Your task to perform on an android device: turn pop-ups on in chrome Image 0: 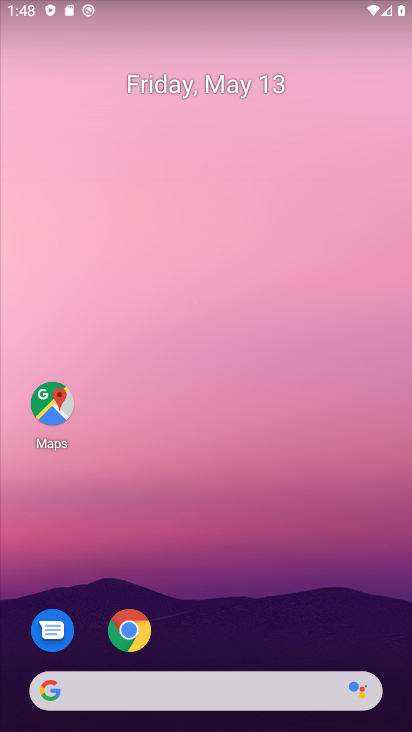
Step 0: click (137, 640)
Your task to perform on an android device: turn pop-ups on in chrome Image 1: 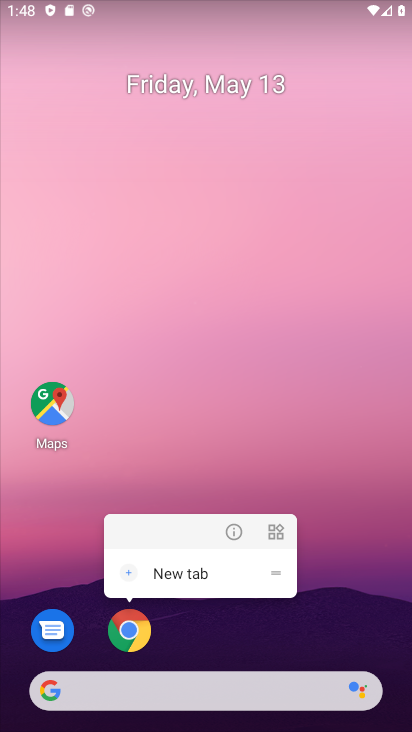
Step 1: click (134, 633)
Your task to perform on an android device: turn pop-ups on in chrome Image 2: 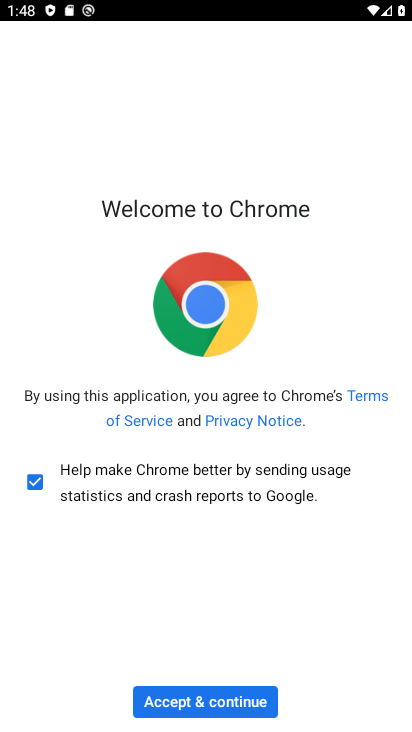
Step 2: click (214, 704)
Your task to perform on an android device: turn pop-ups on in chrome Image 3: 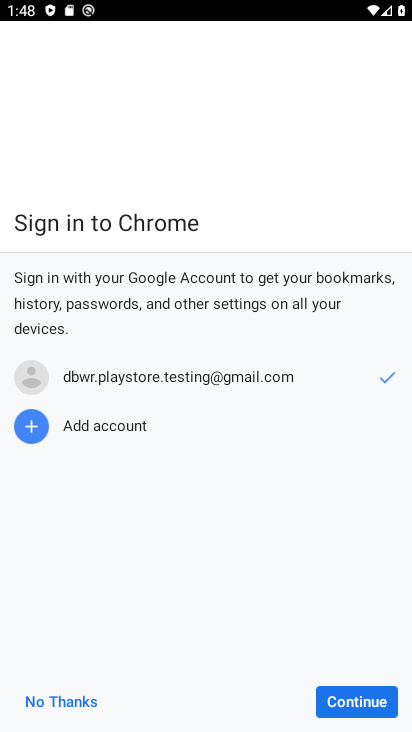
Step 3: click (377, 703)
Your task to perform on an android device: turn pop-ups on in chrome Image 4: 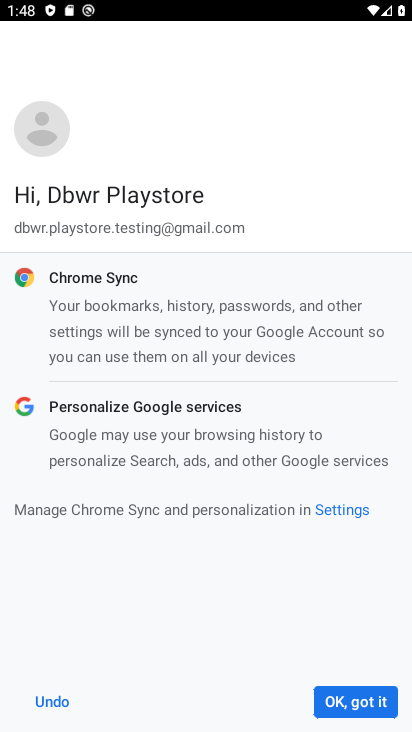
Step 4: click (377, 703)
Your task to perform on an android device: turn pop-ups on in chrome Image 5: 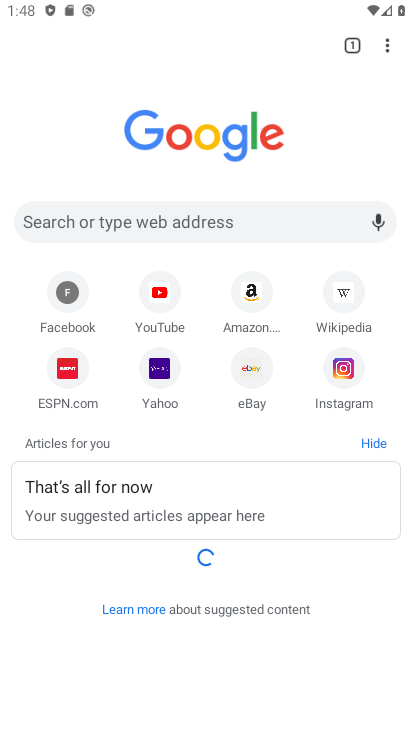
Step 5: click (396, 52)
Your task to perform on an android device: turn pop-ups on in chrome Image 6: 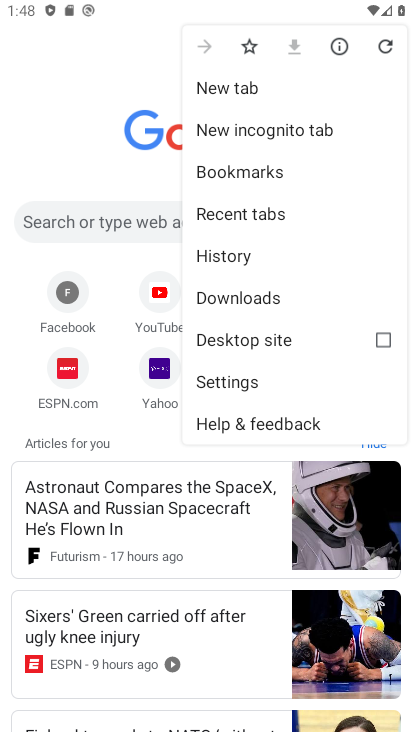
Step 6: click (253, 385)
Your task to perform on an android device: turn pop-ups on in chrome Image 7: 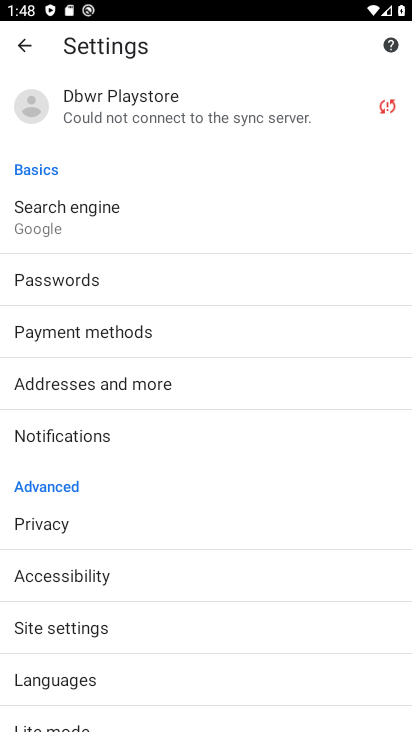
Step 7: click (112, 632)
Your task to perform on an android device: turn pop-ups on in chrome Image 8: 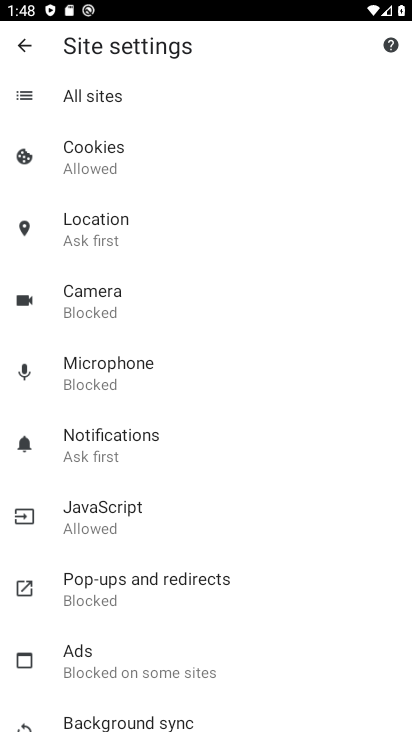
Step 8: click (119, 590)
Your task to perform on an android device: turn pop-ups on in chrome Image 9: 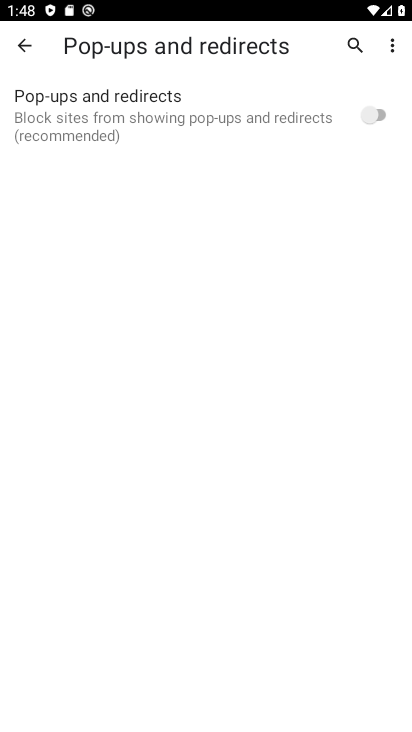
Step 9: click (369, 110)
Your task to perform on an android device: turn pop-ups on in chrome Image 10: 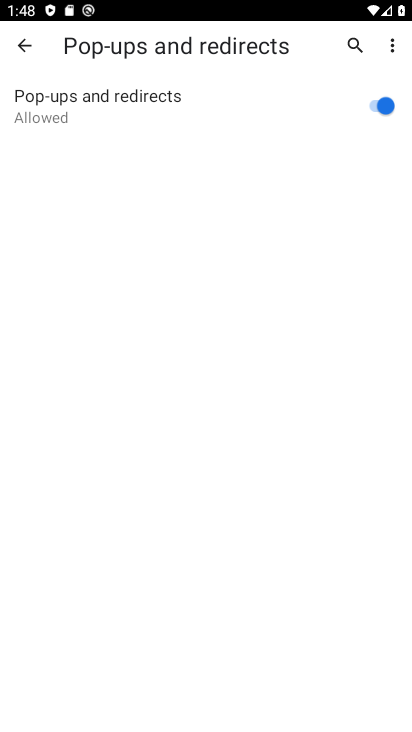
Step 10: task complete